Your task to perform on an android device: Open Chrome and go to settings Image 0: 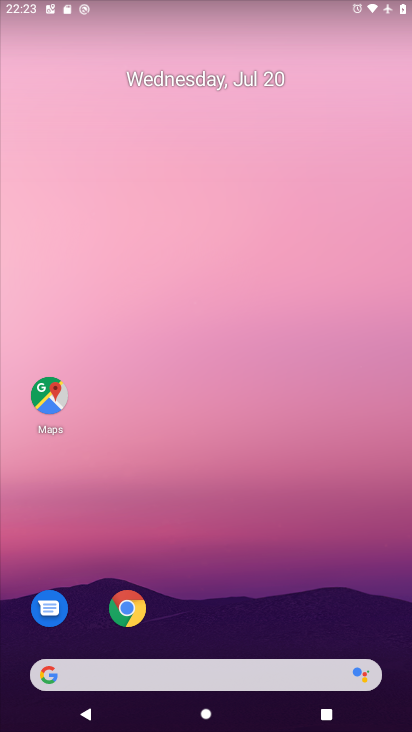
Step 0: drag from (236, 612) to (220, 158)
Your task to perform on an android device: Open Chrome and go to settings Image 1: 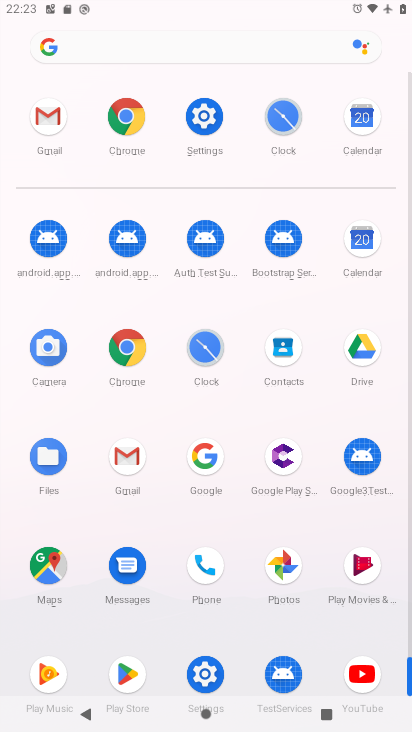
Step 1: click (112, 106)
Your task to perform on an android device: Open Chrome and go to settings Image 2: 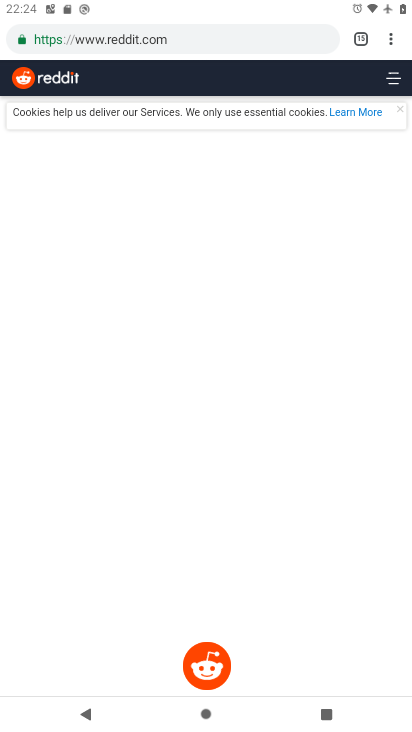
Step 2: click (393, 39)
Your task to perform on an android device: Open Chrome and go to settings Image 3: 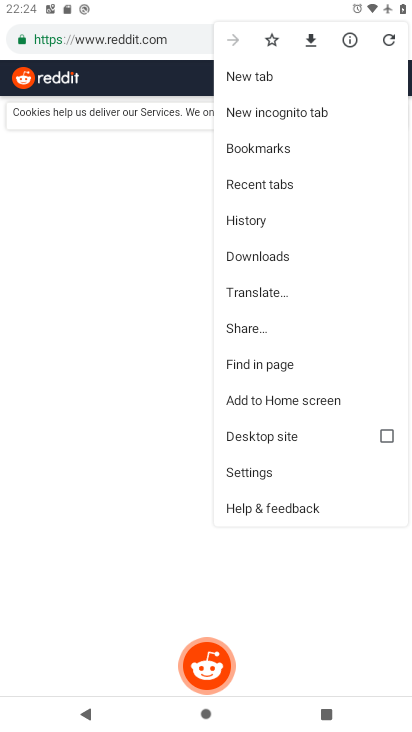
Step 3: click (274, 462)
Your task to perform on an android device: Open Chrome and go to settings Image 4: 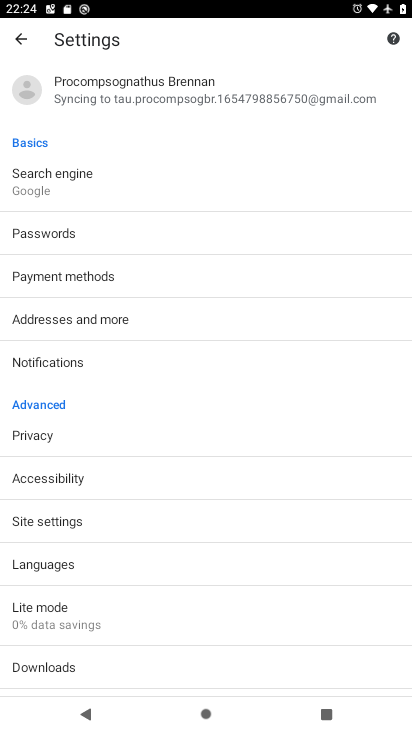
Step 4: task complete